Your task to perform on an android device: Is it going to rain this weekend? Image 0: 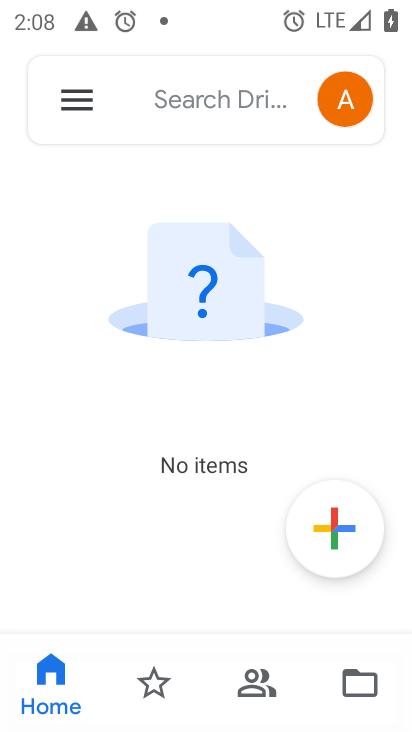
Step 0: press home button
Your task to perform on an android device: Is it going to rain this weekend? Image 1: 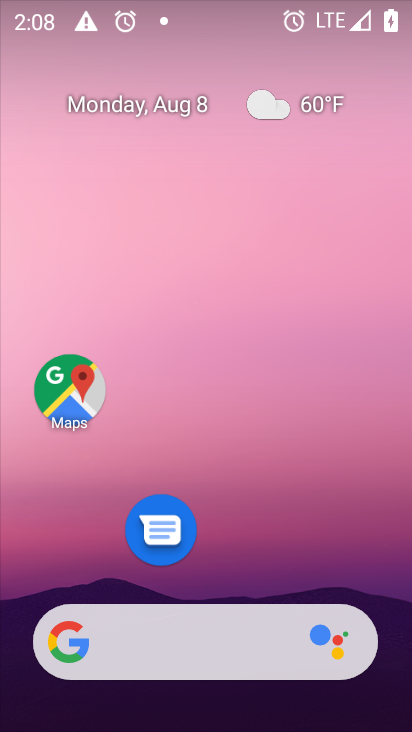
Step 1: drag from (203, 580) to (195, 94)
Your task to perform on an android device: Is it going to rain this weekend? Image 2: 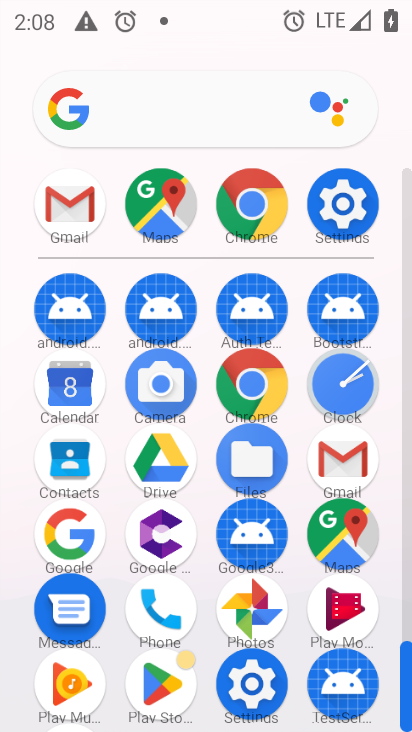
Step 2: click (79, 526)
Your task to perform on an android device: Is it going to rain this weekend? Image 3: 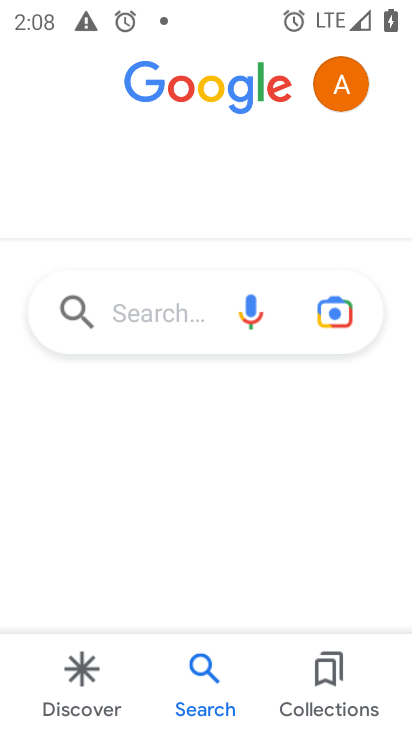
Step 3: click (156, 322)
Your task to perform on an android device: Is it going to rain this weekend? Image 4: 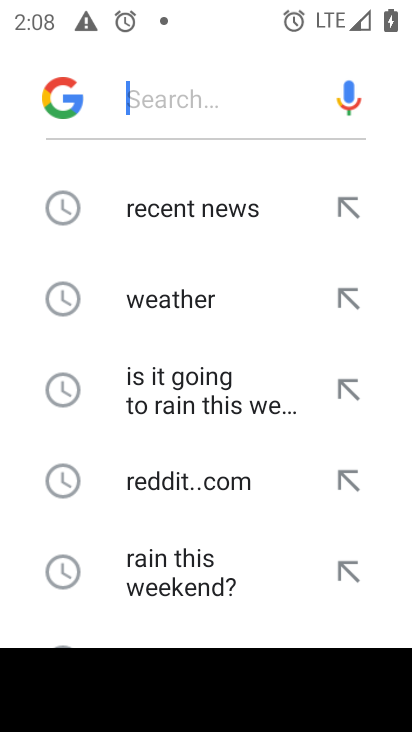
Step 4: click (148, 303)
Your task to perform on an android device: Is it going to rain this weekend? Image 5: 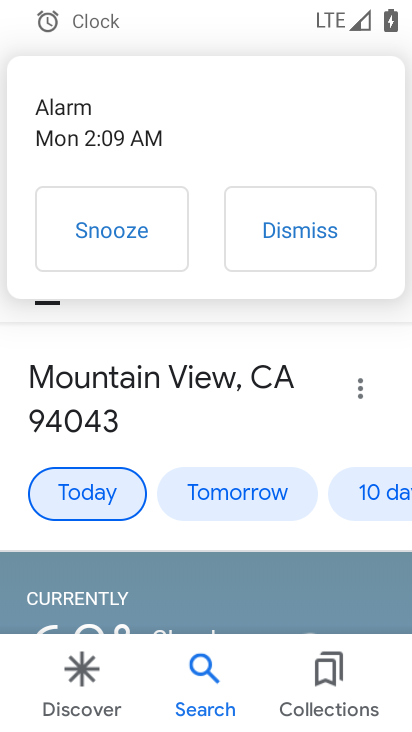
Step 5: click (358, 502)
Your task to perform on an android device: Is it going to rain this weekend? Image 6: 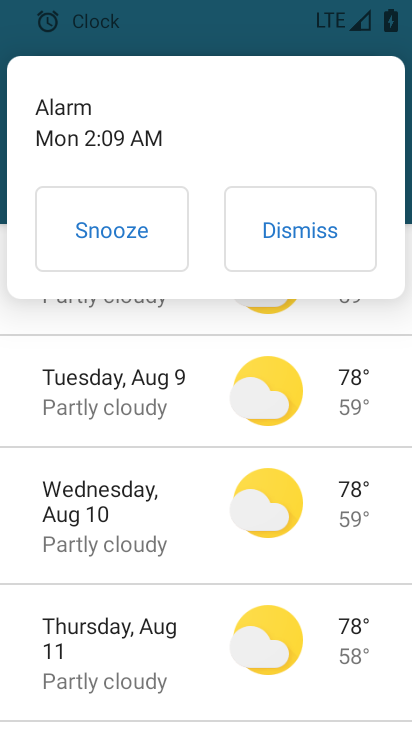
Step 6: task complete